Your task to perform on an android device: refresh tabs in the chrome app Image 0: 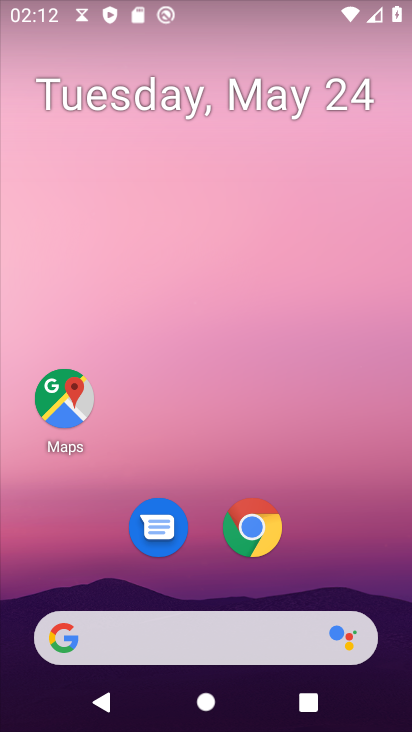
Step 0: press home button
Your task to perform on an android device: refresh tabs in the chrome app Image 1: 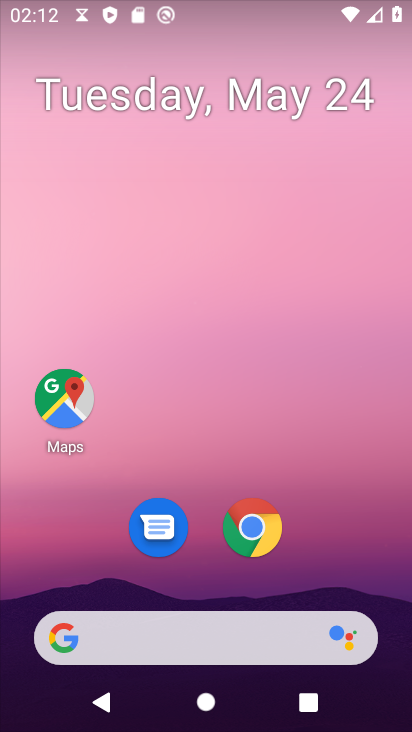
Step 1: click (245, 535)
Your task to perform on an android device: refresh tabs in the chrome app Image 2: 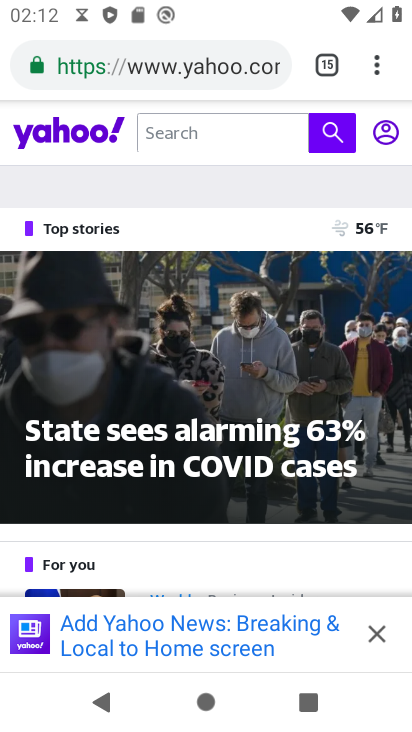
Step 2: click (381, 78)
Your task to perform on an android device: refresh tabs in the chrome app Image 3: 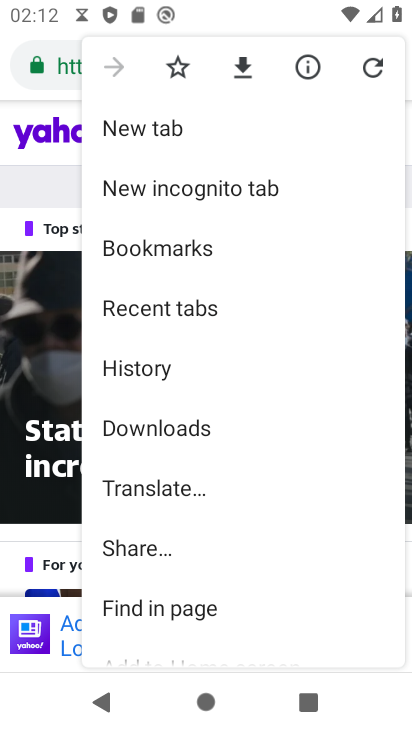
Step 3: click (365, 66)
Your task to perform on an android device: refresh tabs in the chrome app Image 4: 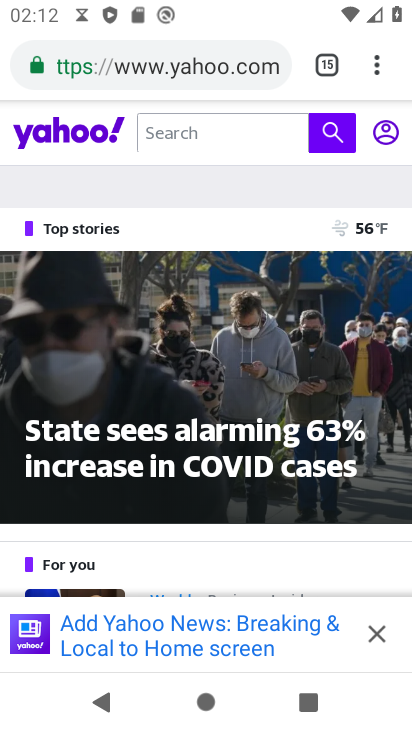
Step 4: task complete